Your task to perform on an android device: set the stopwatch Image 0: 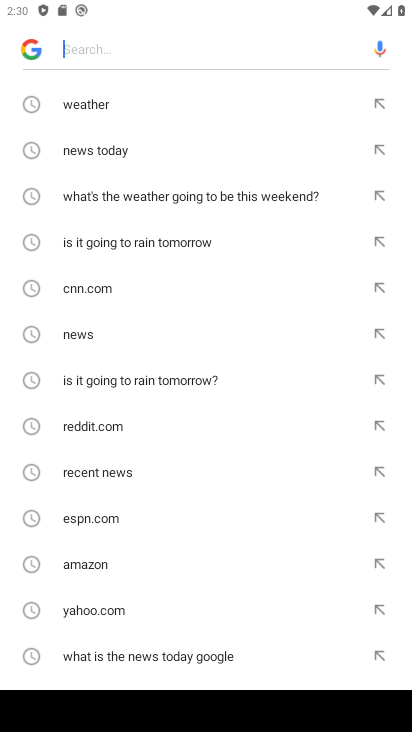
Step 0: press home button
Your task to perform on an android device: set the stopwatch Image 1: 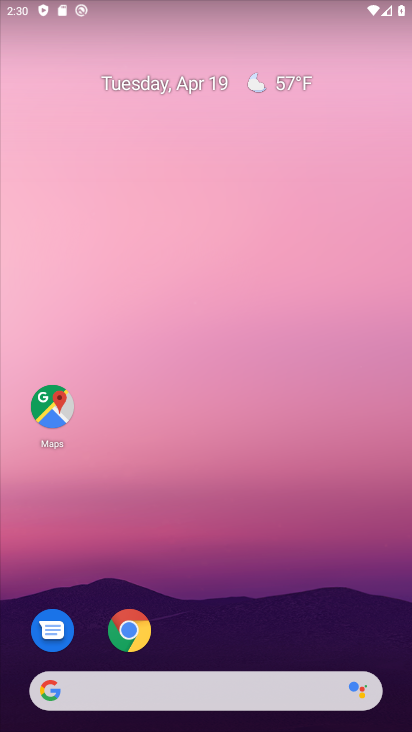
Step 1: drag from (240, 605) to (246, 64)
Your task to perform on an android device: set the stopwatch Image 2: 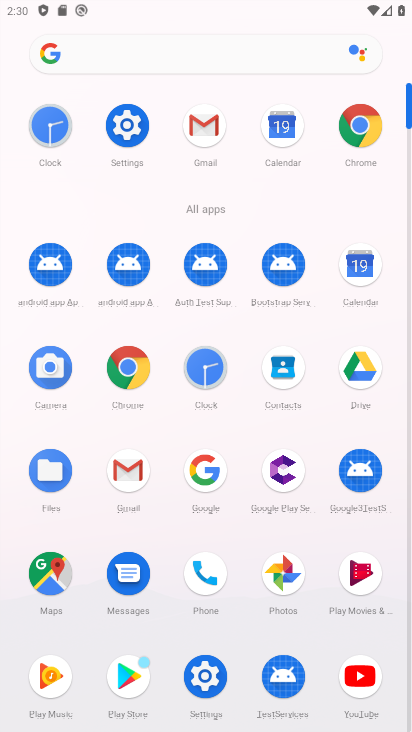
Step 2: click (46, 130)
Your task to perform on an android device: set the stopwatch Image 3: 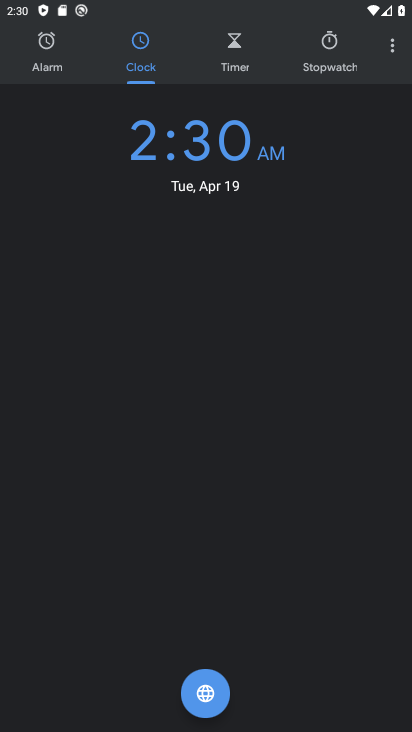
Step 3: click (318, 56)
Your task to perform on an android device: set the stopwatch Image 4: 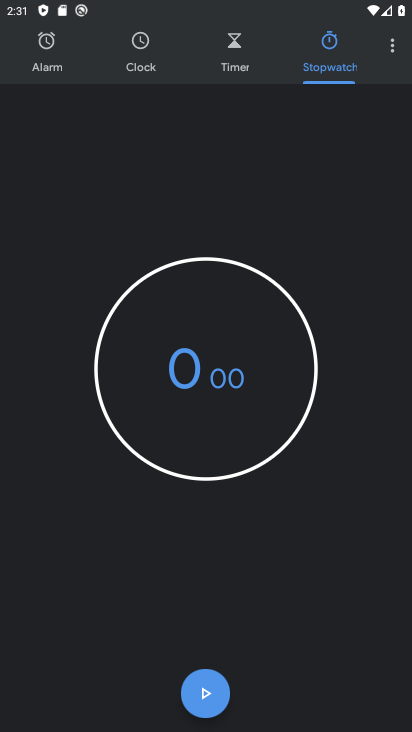
Step 4: click (222, 701)
Your task to perform on an android device: set the stopwatch Image 5: 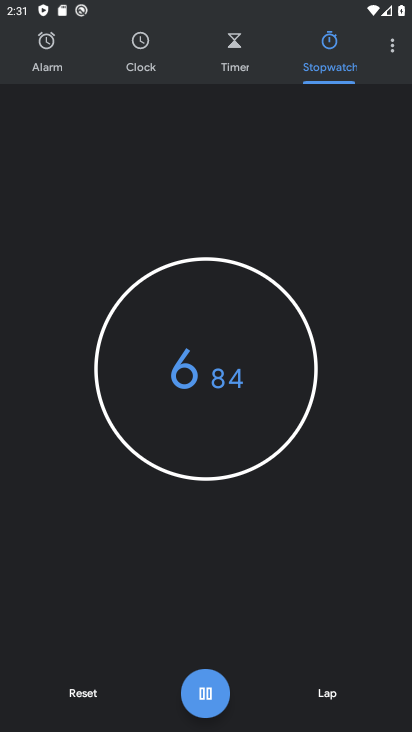
Step 5: task complete